Your task to perform on an android device: Search for vegetarian restaurants on Maps Image 0: 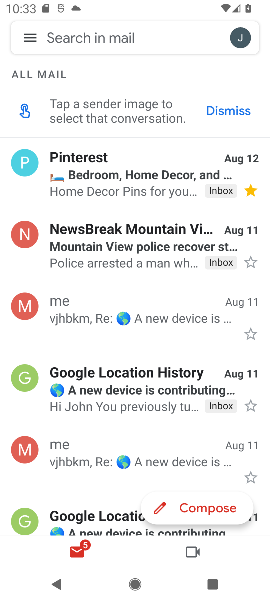
Step 0: press home button
Your task to perform on an android device: Search for vegetarian restaurants on Maps Image 1: 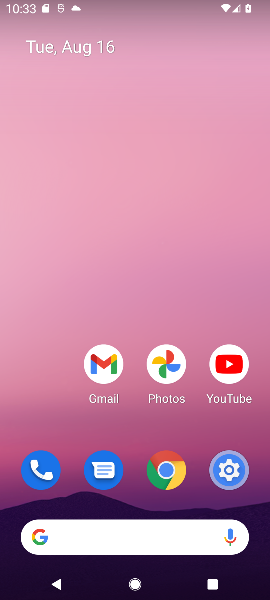
Step 1: drag from (57, 376) to (95, 6)
Your task to perform on an android device: Search for vegetarian restaurants on Maps Image 2: 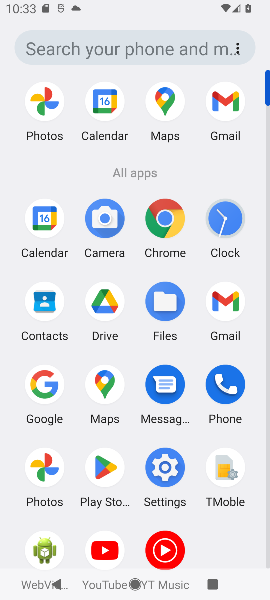
Step 2: click (163, 97)
Your task to perform on an android device: Search for vegetarian restaurants on Maps Image 3: 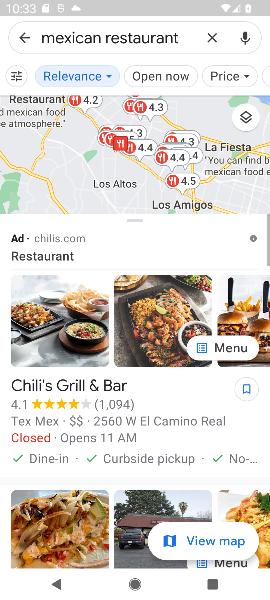
Step 3: click (211, 37)
Your task to perform on an android device: Search for vegetarian restaurants on Maps Image 4: 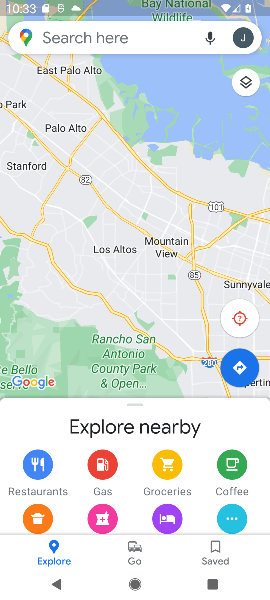
Step 4: click (172, 35)
Your task to perform on an android device: Search for vegetarian restaurants on Maps Image 5: 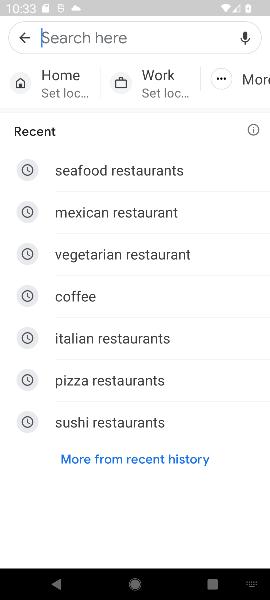
Step 5: click (109, 250)
Your task to perform on an android device: Search for vegetarian restaurants on Maps Image 6: 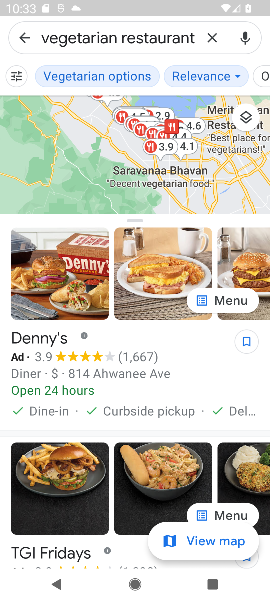
Step 6: task complete